Your task to perform on an android device: empty trash in google photos Image 0: 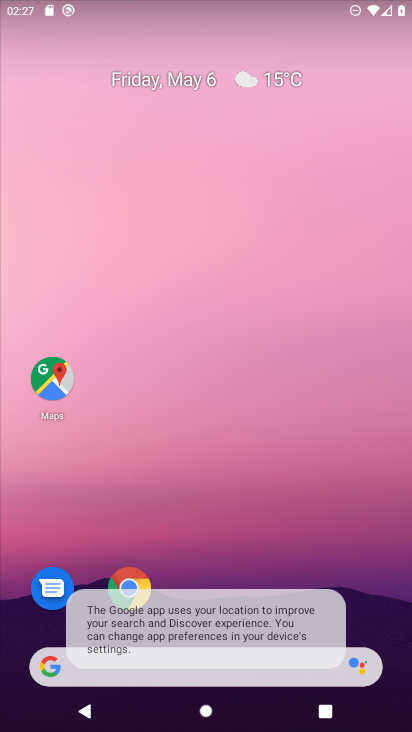
Step 0: drag from (217, 640) to (78, 65)
Your task to perform on an android device: empty trash in google photos Image 1: 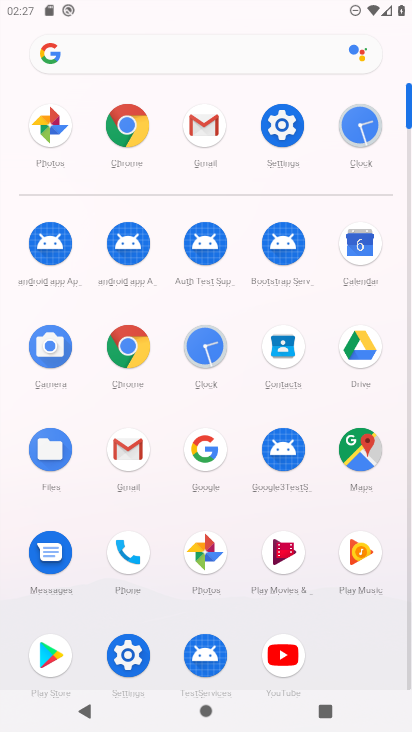
Step 1: click (207, 560)
Your task to perform on an android device: empty trash in google photos Image 2: 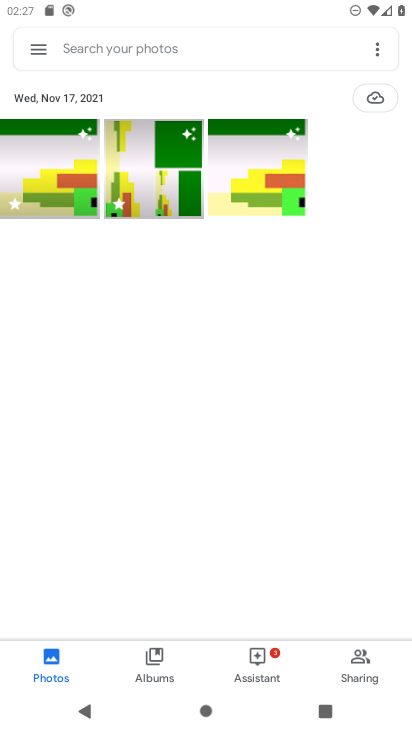
Step 2: click (36, 45)
Your task to perform on an android device: empty trash in google photos Image 3: 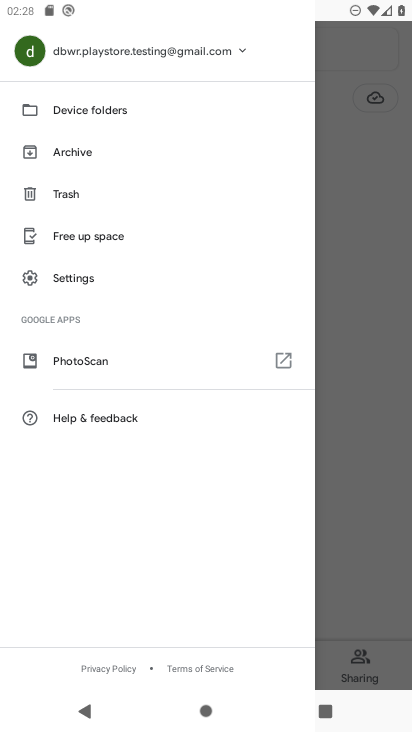
Step 3: click (69, 201)
Your task to perform on an android device: empty trash in google photos Image 4: 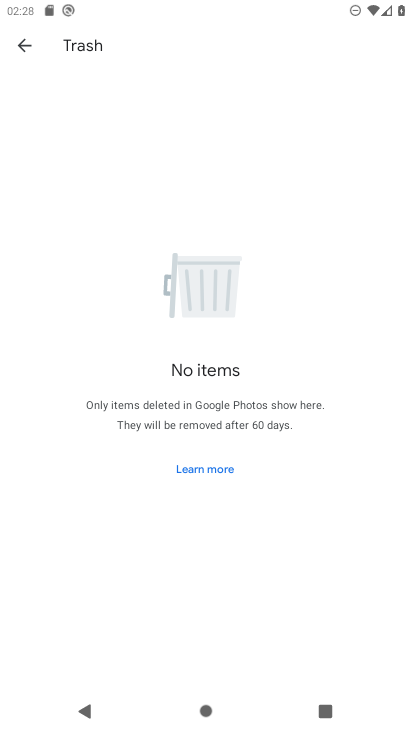
Step 4: task complete